Your task to perform on an android device: Find coffee shops on Maps Image 0: 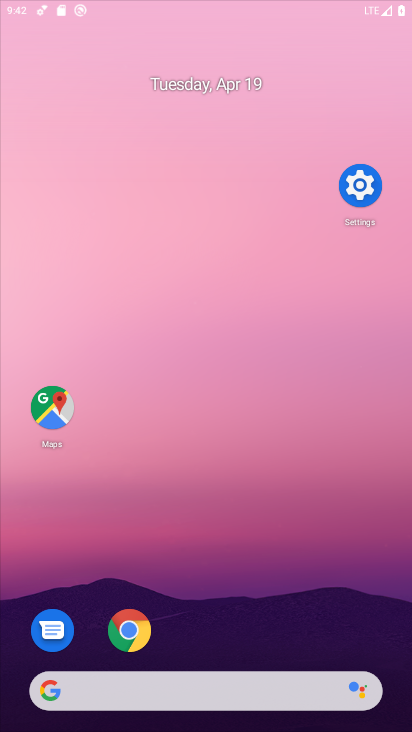
Step 0: drag from (286, 454) to (308, 64)
Your task to perform on an android device: Find coffee shops on Maps Image 1: 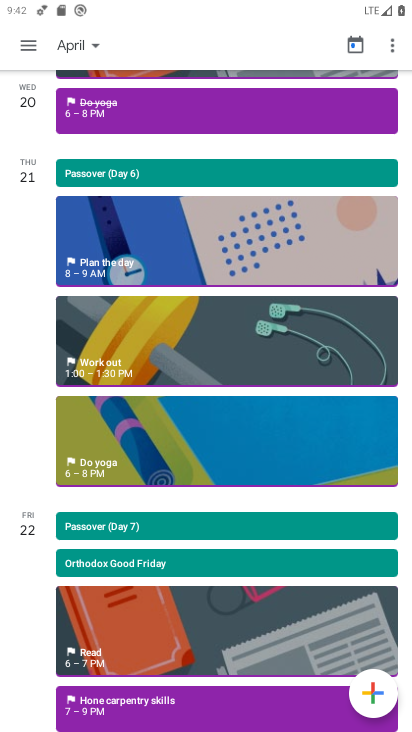
Step 1: press home button
Your task to perform on an android device: Find coffee shops on Maps Image 2: 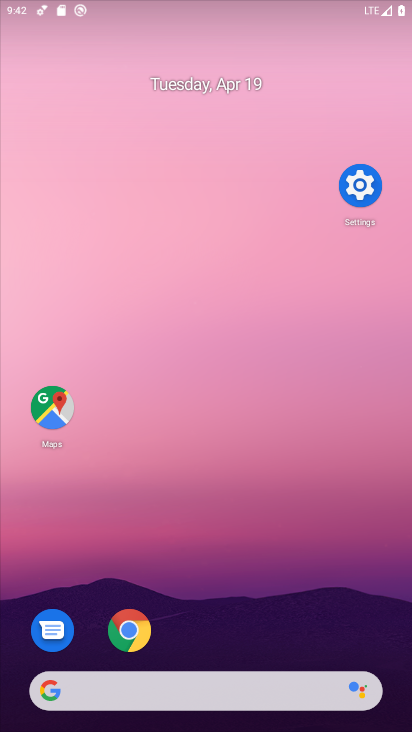
Step 2: drag from (184, 552) to (191, 136)
Your task to perform on an android device: Find coffee shops on Maps Image 3: 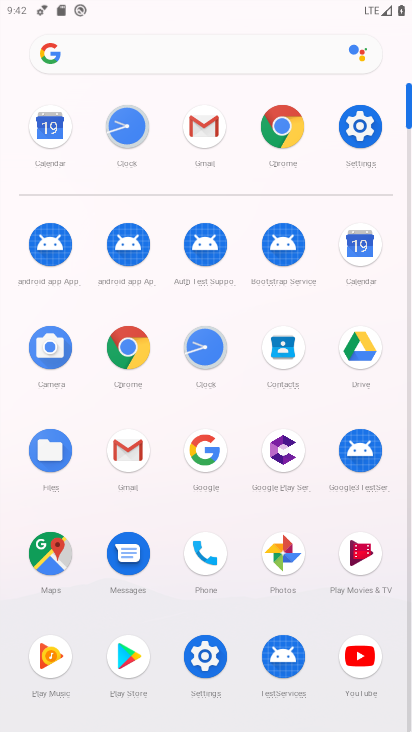
Step 3: click (56, 580)
Your task to perform on an android device: Find coffee shops on Maps Image 4: 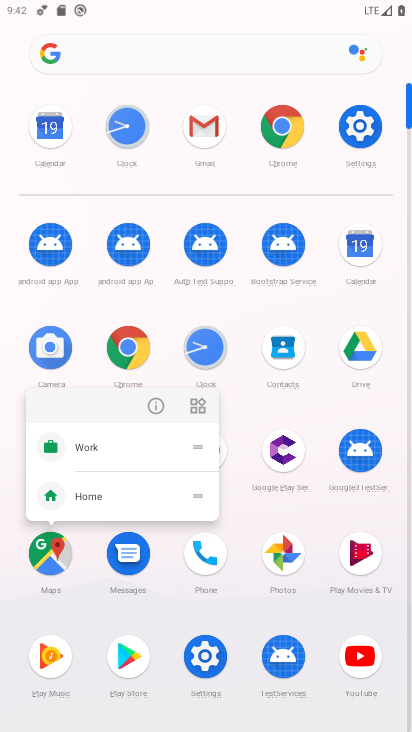
Step 4: click (56, 580)
Your task to perform on an android device: Find coffee shops on Maps Image 5: 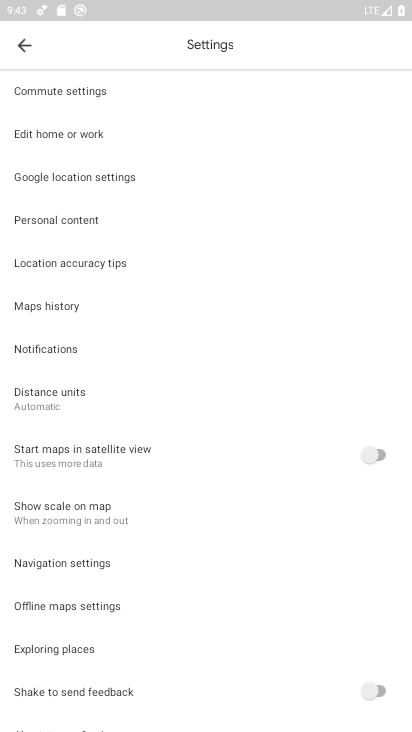
Step 5: click (29, 45)
Your task to perform on an android device: Find coffee shops on Maps Image 6: 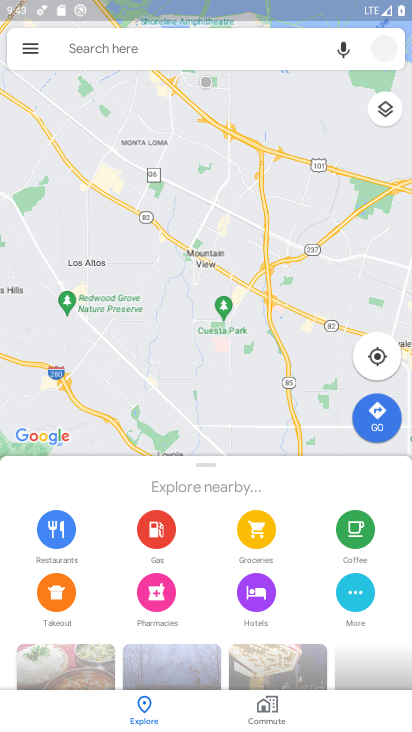
Step 6: click (32, 50)
Your task to perform on an android device: Find coffee shops on Maps Image 7: 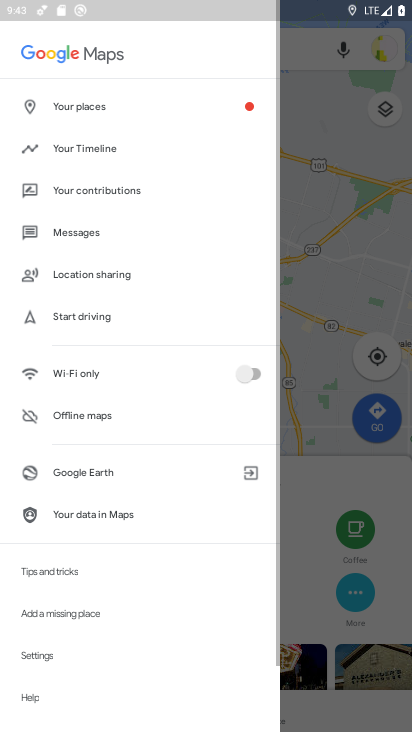
Step 7: click (313, 79)
Your task to perform on an android device: Find coffee shops on Maps Image 8: 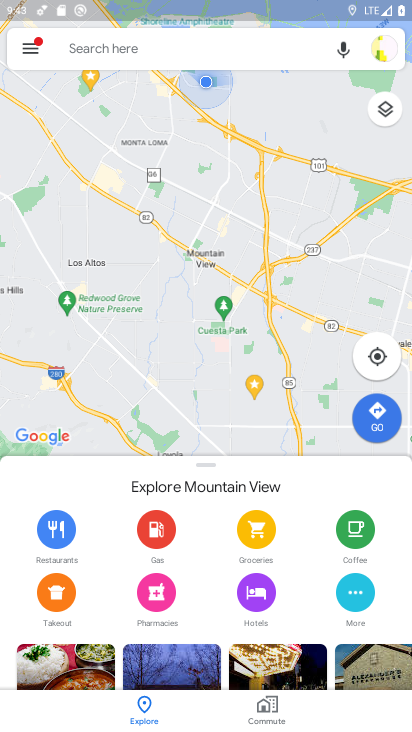
Step 8: click (261, 53)
Your task to perform on an android device: Find coffee shops on Maps Image 9: 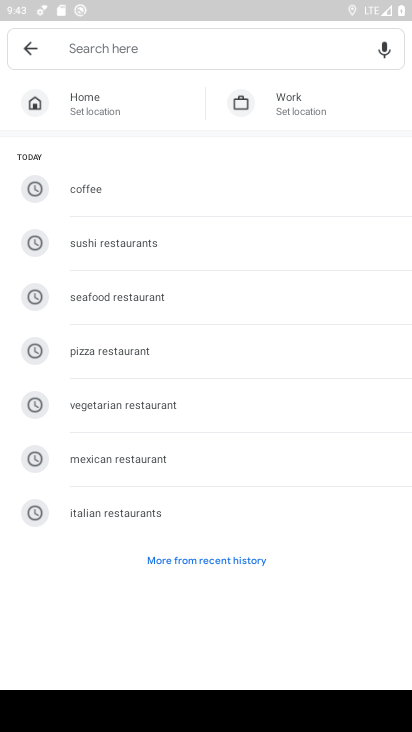
Step 9: click (148, 189)
Your task to perform on an android device: Find coffee shops on Maps Image 10: 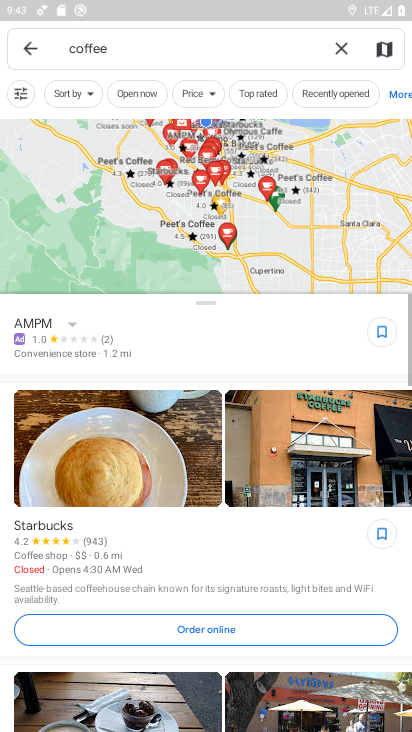
Step 10: task complete